Your task to perform on an android device: Open the Play Movies app and select the watchlist tab. Image 0: 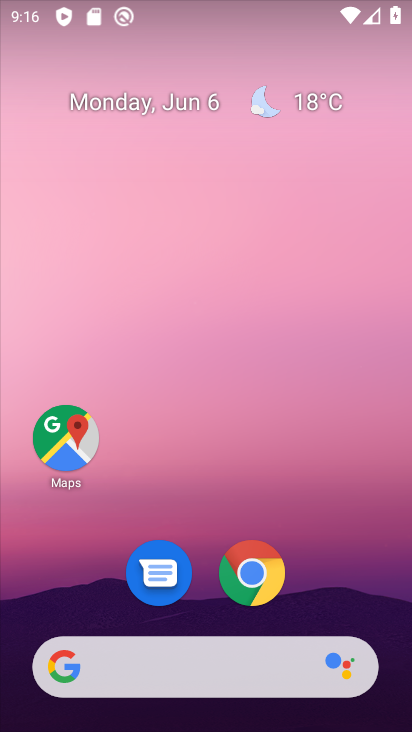
Step 0: drag from (388, 608) to (325, 179)
Your task to perform on an android device: Open the Play Movies app and select the watchlist tab. Image 1: 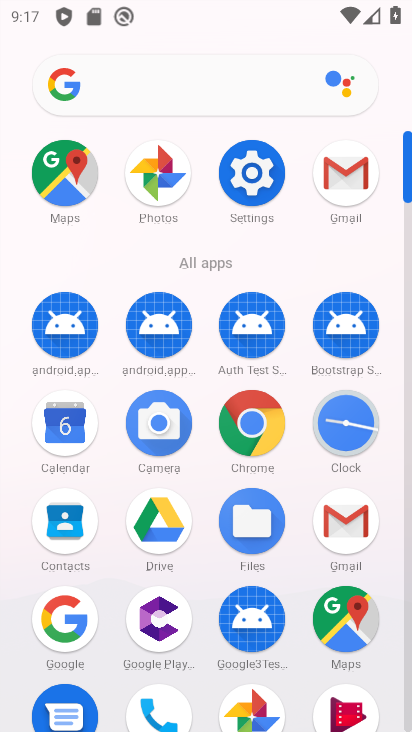
Step 1: click (406, 707)
Your task to perform on an android device: Open the Play Movies app and select the watchlist tab. Image 2: 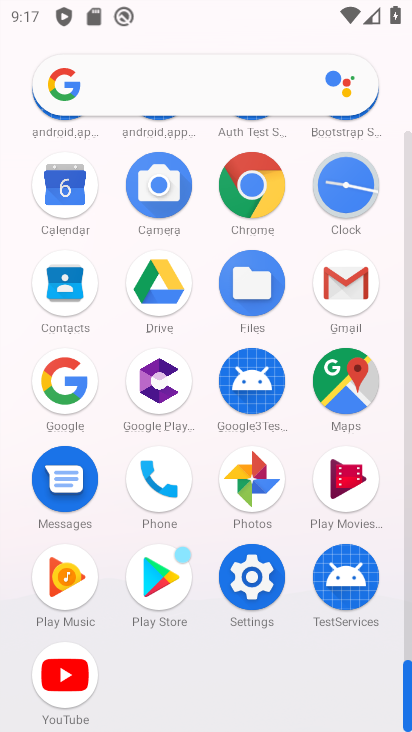
Step 2: click (347, 505)
Your task to perform on an android device: Open the Play Movies app and select the watchlist tab. Image 3: 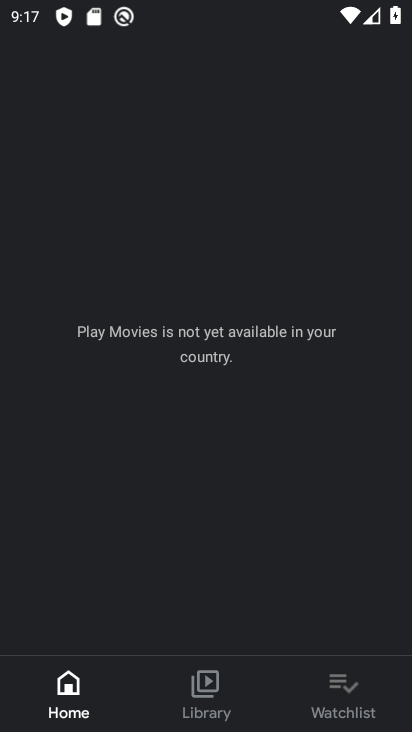
Step 3: click (349, 704)
Your task to perform on an android device: Open the Play Movies app and select the watchlist tab. Image 4: 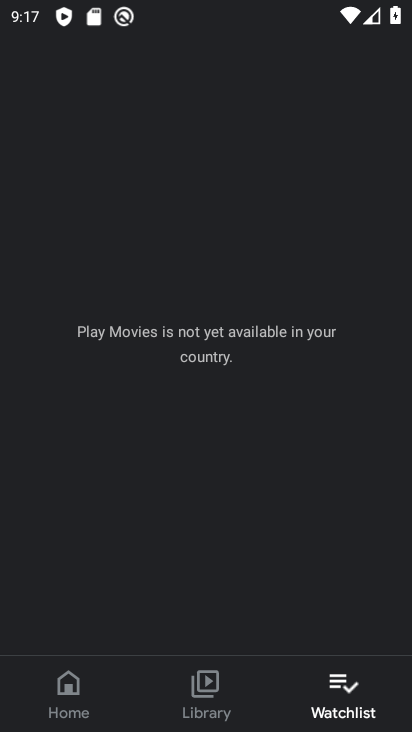
Step 4: task complete